Your task to perform on an android device: Go to battery settings Image 0: 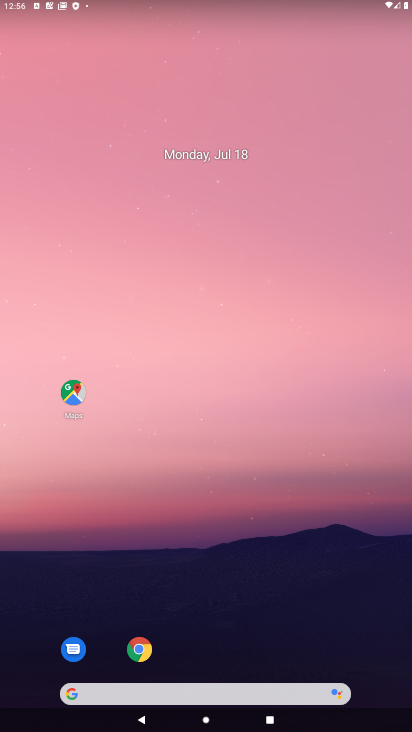
Step 0: drag from (385, 677) to (296, 164)
Your task to perform on an android device: Go to battery settings Image 1: 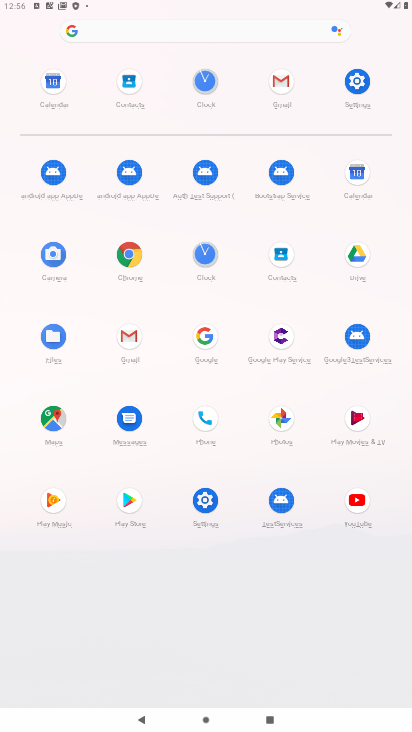
Step 1: click (206, 501)
Your task to perform on an android device: Go to battery settings Image 2: 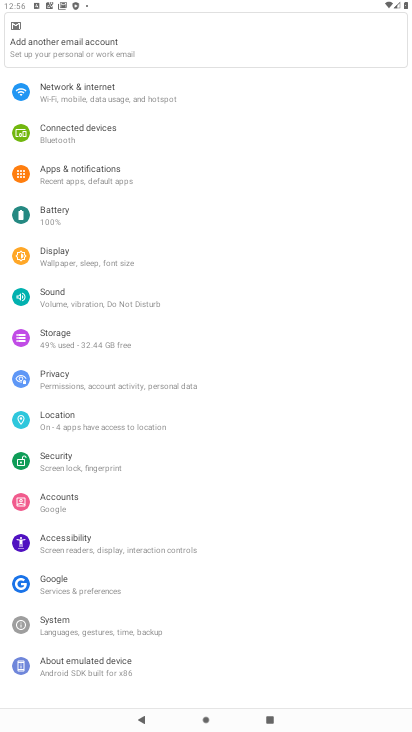
Step 2: click (50, 212)
Your task to perform on an android device: Go to battery settings Image 3: 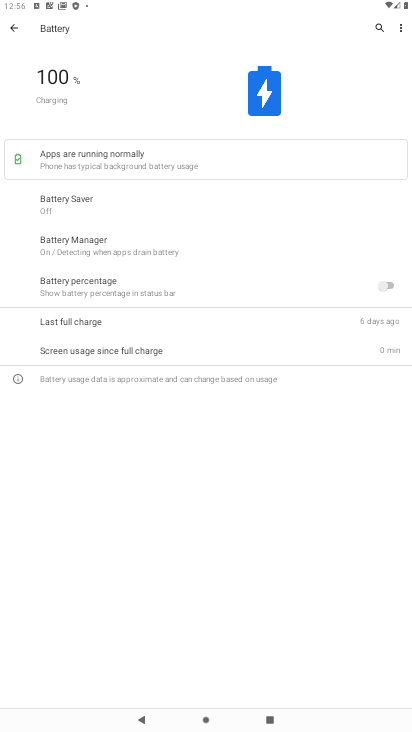
Step 3: task complete